Your task to perform on an android device: View the shopping cart on amazon.com. Search for duracell triple a on amazon.com, select the first entry, add it to the cart, then select checkout. Image 0: 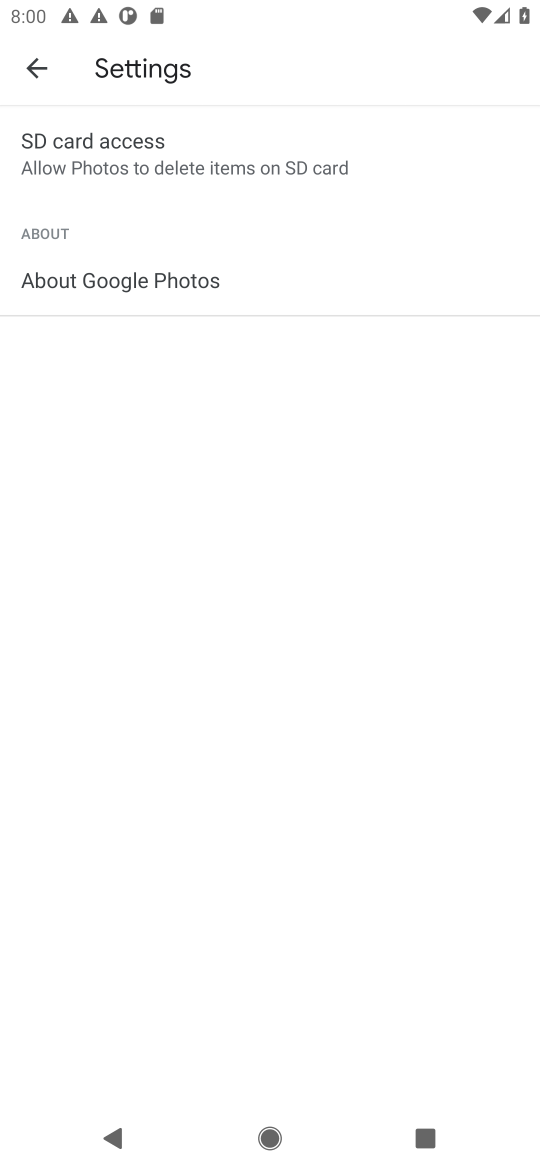
Step 0: press home button
Your task to perform on an android device: View the shopping cart on amazon.com. Search for duracell triple a on amazon.com, select the first entry, add it to the cart, then select checkout. Image 1: 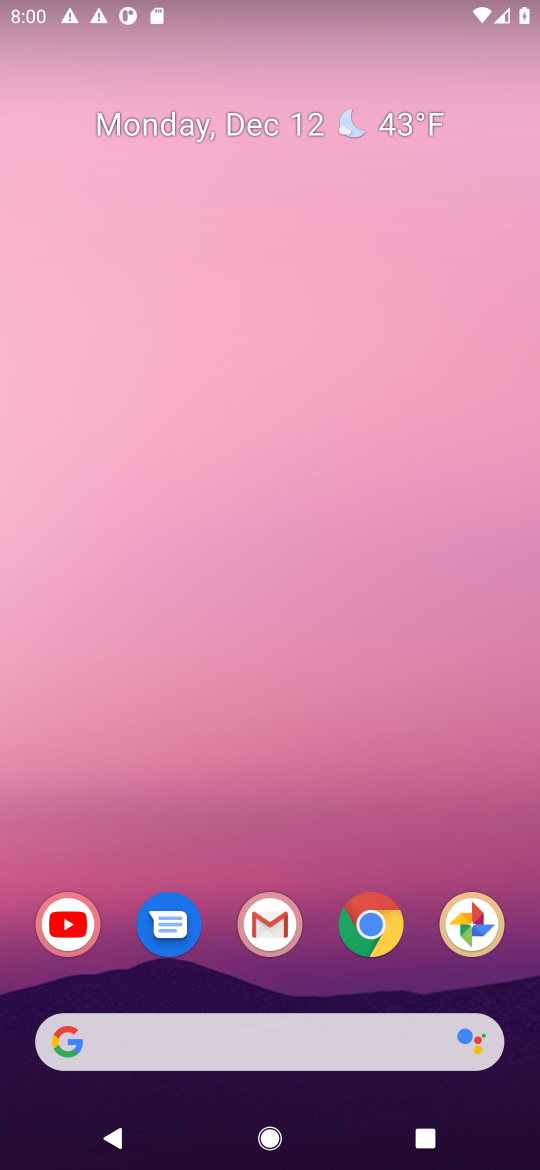
Step 1: click (160, 1045)
Your task to perform on an android device: View the shopping cart on amazon.com. Search for duracell triple a on amazon.com, select the first entry, add it to the cart, then select checkout. Image 2: 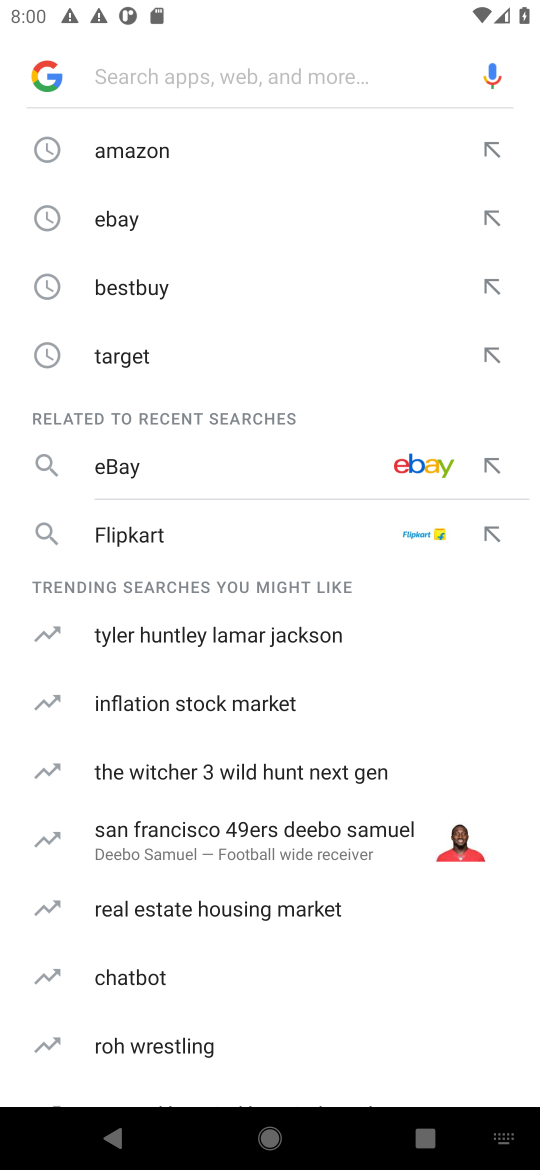
Step 2: click (150, 150)
Your task to perform on an android device: View the shopping cart on amazon.com. Search for duracell triple a on amazon.com, select the first entry, add it to the cart, then select checkout. Image 3: 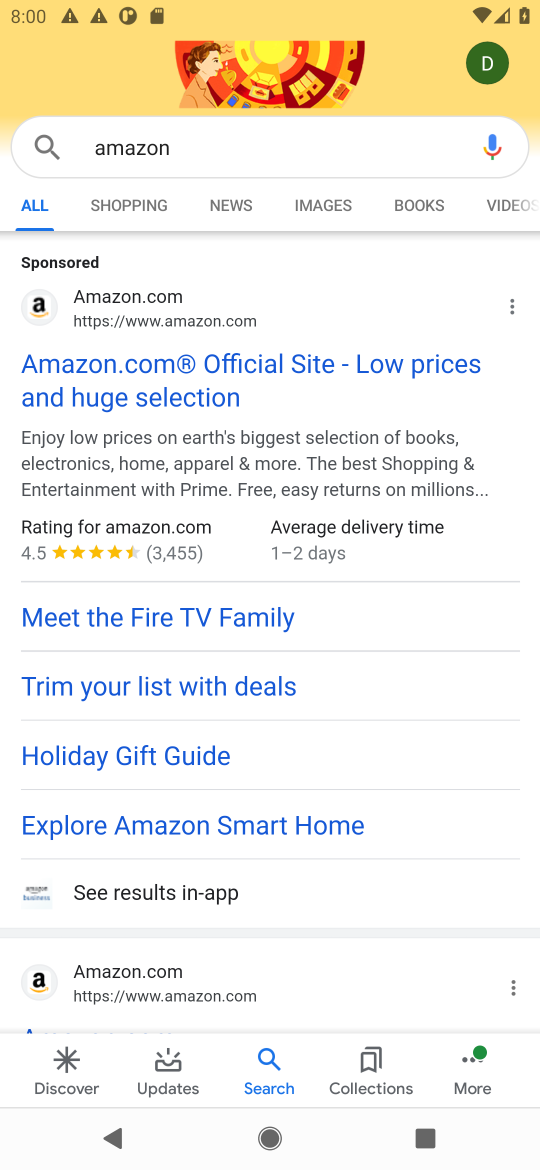
Step 3: click (147, 363)
Your task to perform on an android device: View the shopping cart on amazon.com. Search for duracell triple a on amazon.com, select the first entry, add it to the cart, then select checkout. Image 4: 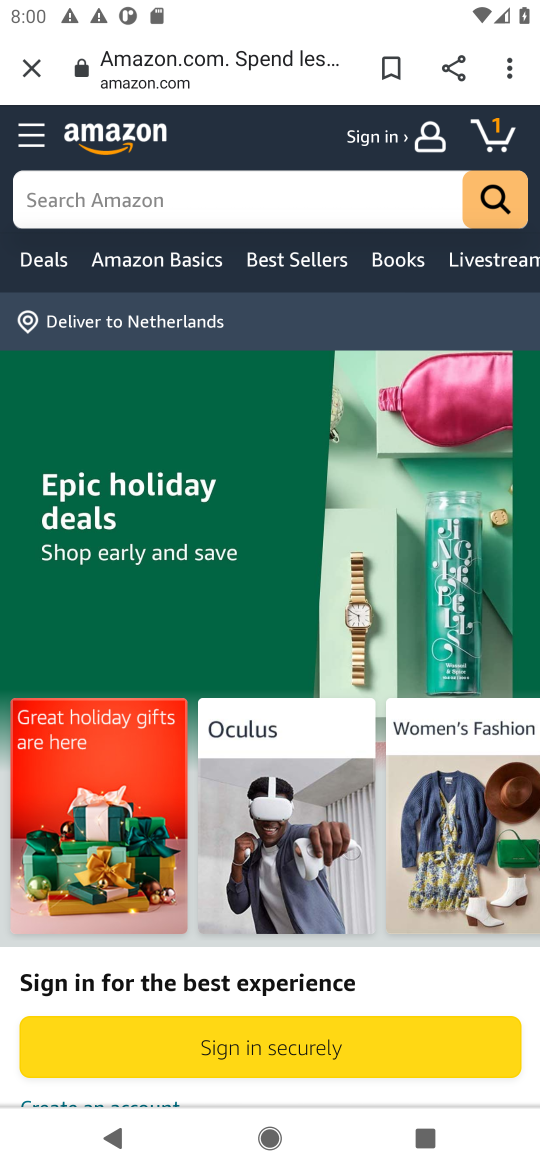
Step 4: click (240, 200)
Your task to perform on an android device: View the shopping cart on amazon.com. Search for duracell triple a on amazon.com, select the first entry, add it to the cart, then select checkout. Image 5: 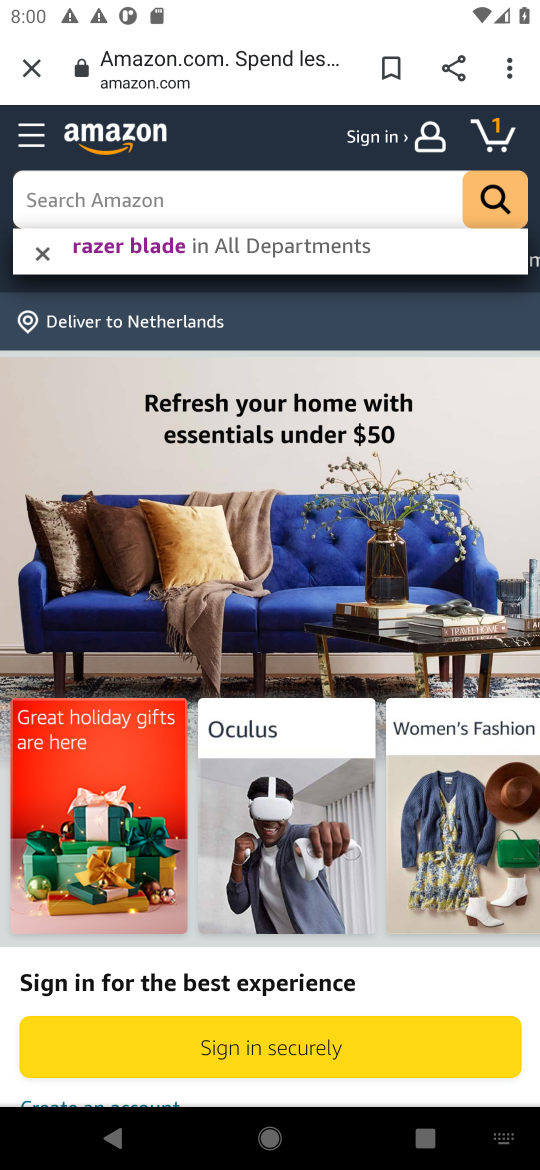
Step 5: type " amazon.com"
Your task to perform on an android device: View the shopping cart on amazon.com. Search for duracell triple a on amazon.com, select the first entry, add it to the cart, then select checkout. Image 6: 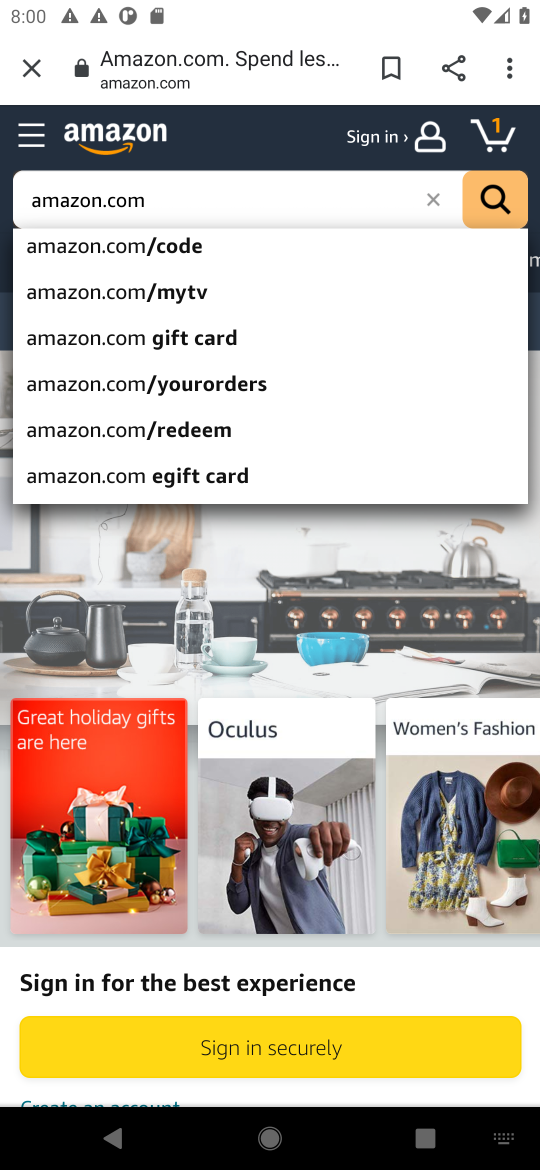
Step 6: click (429, 203)
Your task to perform on an android device: View the shopping cart on amazon.com. Search for duracell triple a on amazon.com, select the first entry, add it to the cart, then select checkout. Image 7: 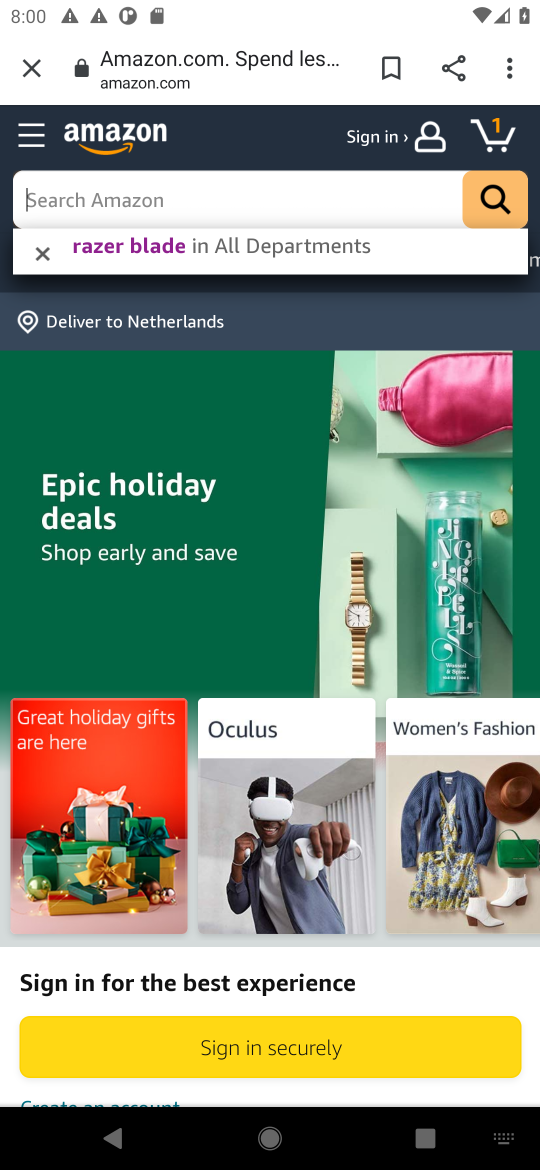
Step 7: type "duracell triple a"
Your task to perform on an android device: View the shopping cart on amazon.com. Search for duracell triple a on amazon.com, select the first entry, add it to the cart, then select checkout. Image 8: 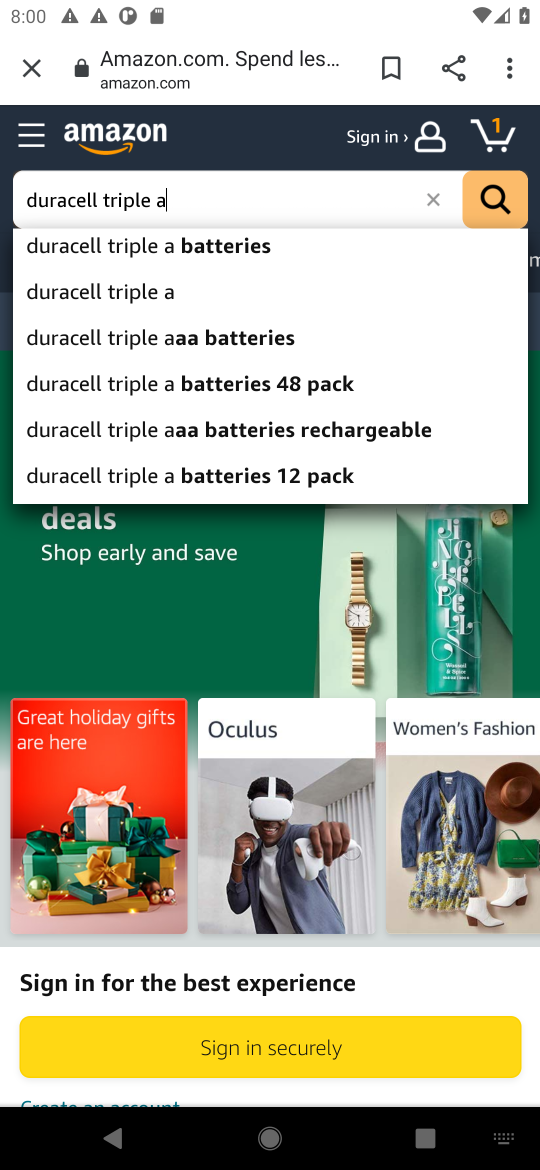
Step 8: click (144, 242)
Your task to perform on an android device: View the shopping cart on amazon.com. Search for duracell triple a on amazon.com, select the first entry, add it to the cart, then select checkout. Image 9: 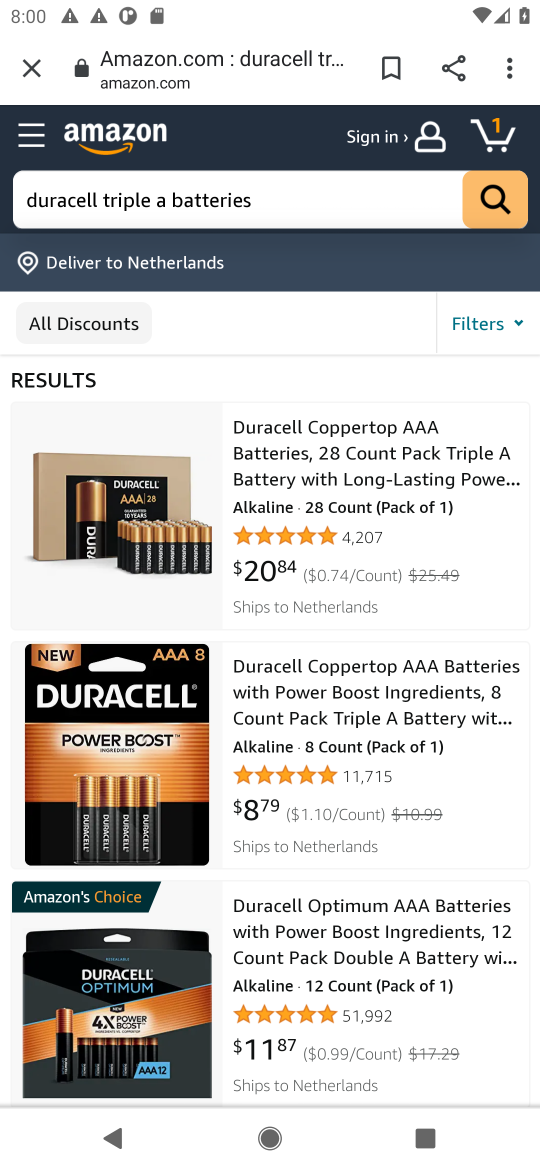
Step 9: click (181, 517)
Your task to perform on an android device: View the shopping cart on amazon.com. Search for duracell triple a on amazon.com, select the first entry, add it to the cart, then select checkout. Image 10: 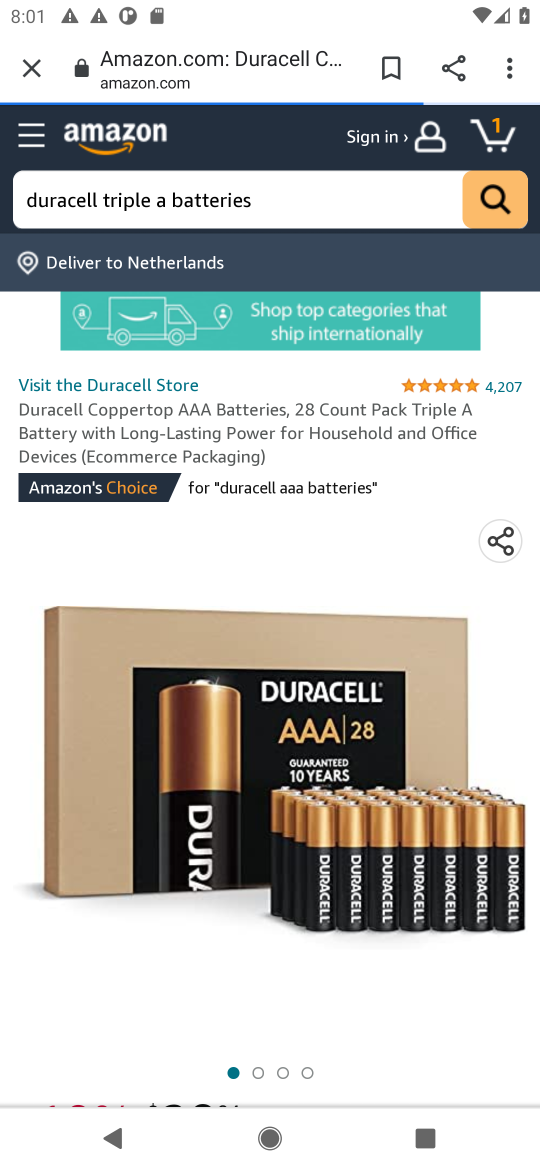
Step 10: drag from (314, 885) to (353, 585)
Your task to perform on an android device: View the shopping cart on amazon.com. Search for duracell triple a on amazon.com, select the first entry, add it to the cart, then select checkout. Image 11: 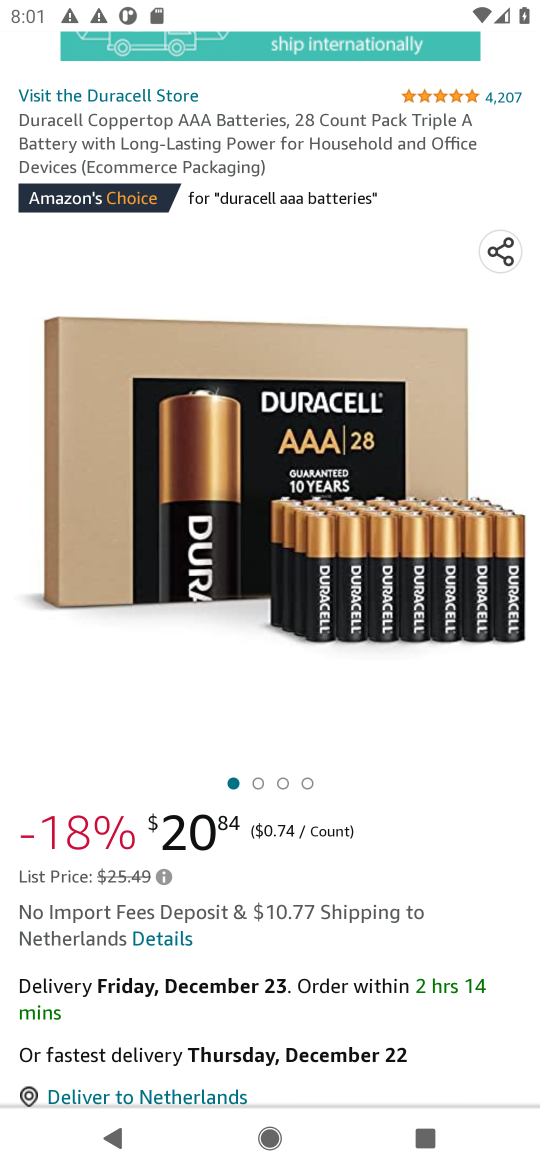
Step 11: drag from (287, 639) to (287, 490)
Your task to perform on an android device: View the shopping cart on amazon.com. Search for duracell triple a on amazon.com, select the first entry, add it to the cart, then select checkout. Image 12: 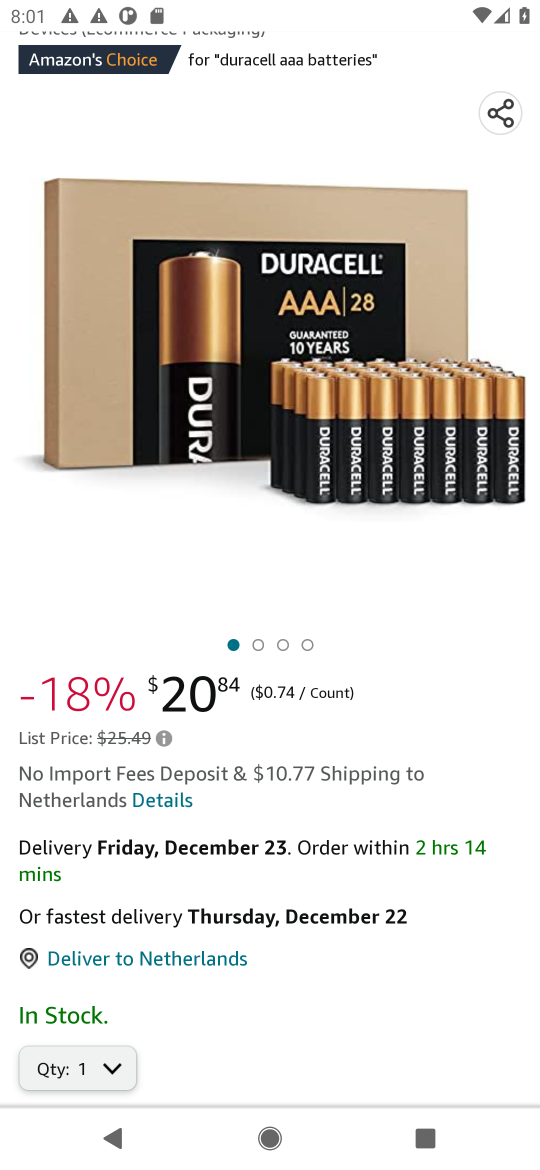
Step 12: drag from (211, 845) to (333, 497)
Your task to perform on an android device: View the shopping cart on amazon.com. Search for duracell triple a on amazon.com, select the first entry, add it to the cart, then select checkout. Image 13: 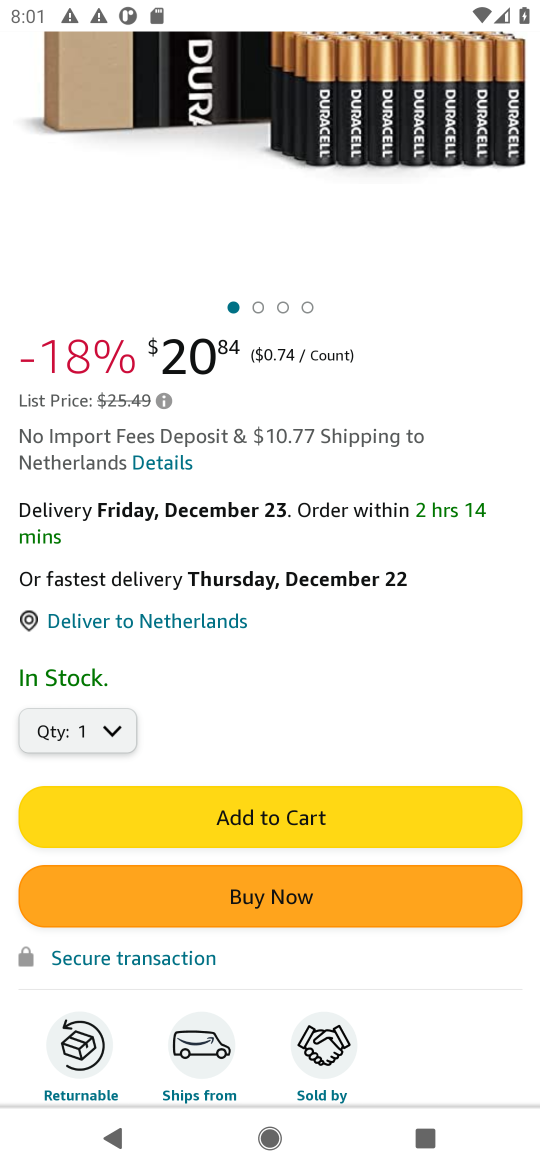
Step 13: click (244, 825)
Your task to perform on an android device: View the shopping cart on amazon.com. Search for duracell triple a on amazon.com, select the first entry, add it to the cart, then select checkout. Image 14: 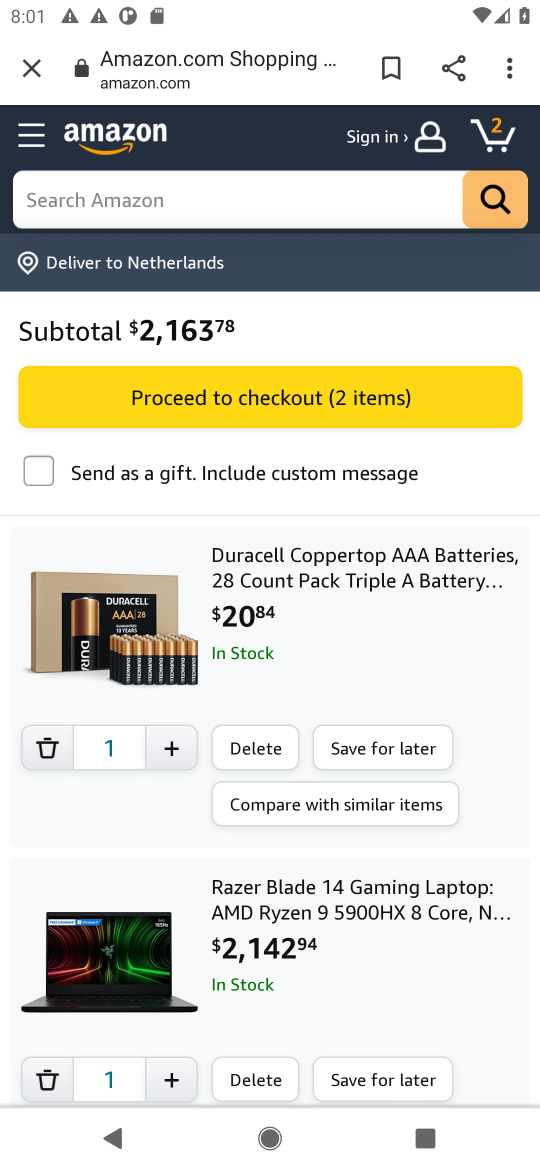
Step 14: click (496, 126)
Your task to perform on an android device: View the shopping cart on amazon.com. Search for duracell triple a on amazon.com, select the first entry, add it to the cart, then select checkout. Image 15: 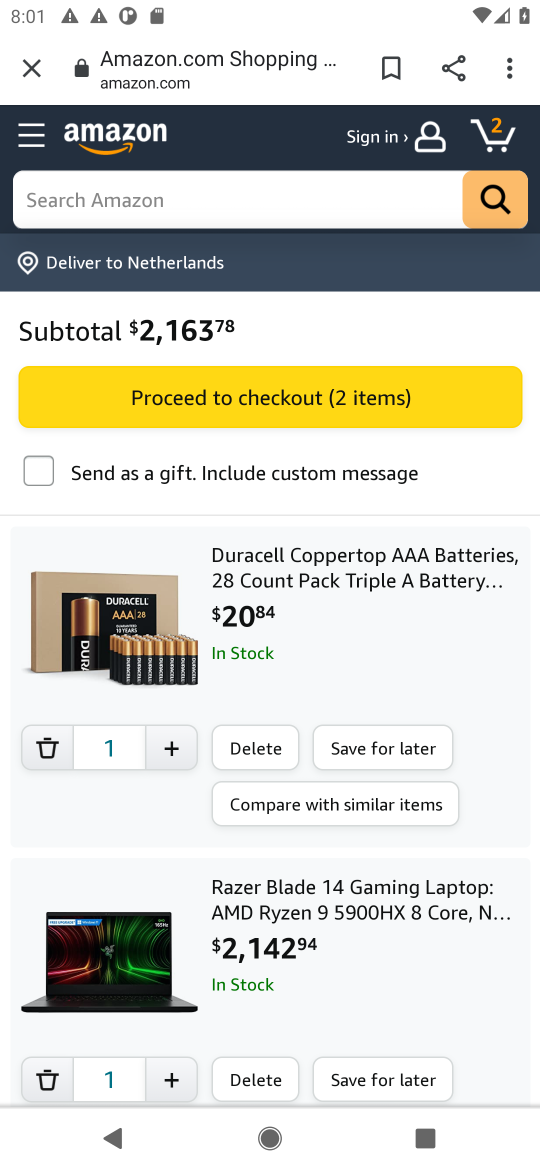
Step 15: click (250, 408)
Your task to perform on an android device: View the shopping cart on amazon.com. Search for duracell triple a on amazon.com, select the first entry, add it to the cart, then select checkout. Image 16: 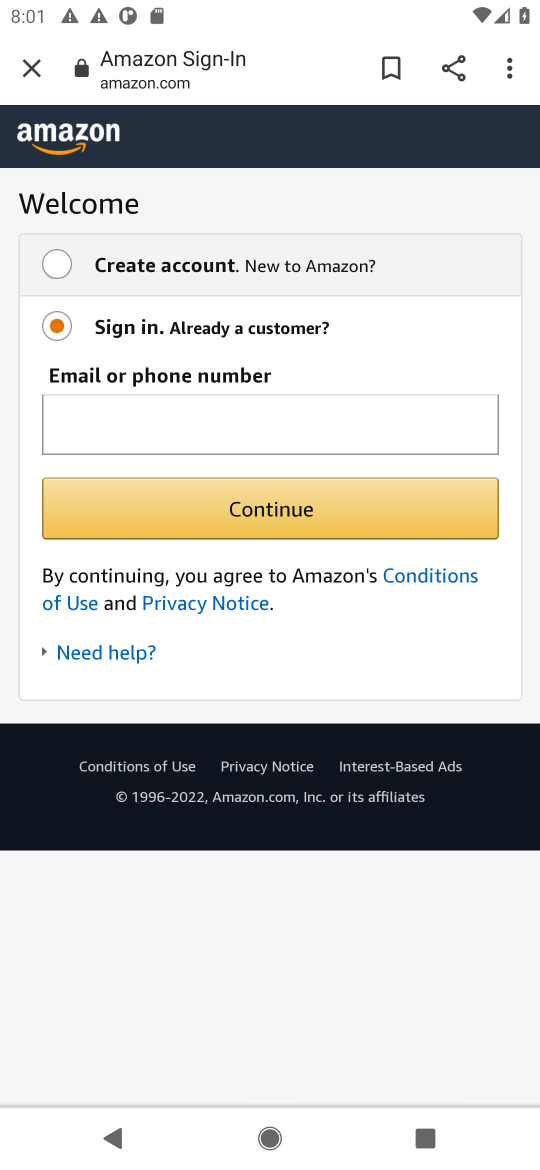
Step 16: task complete